Your task to perform on an android device: Open the map Image 0: 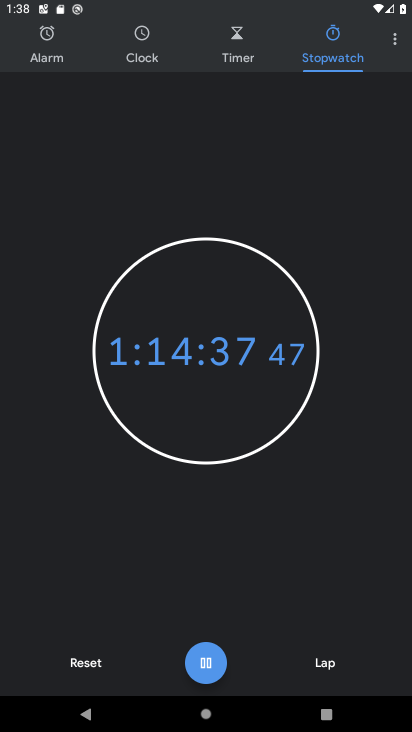
Step 0: press home button
Your task to perform on an android device: Open the map Image 1: 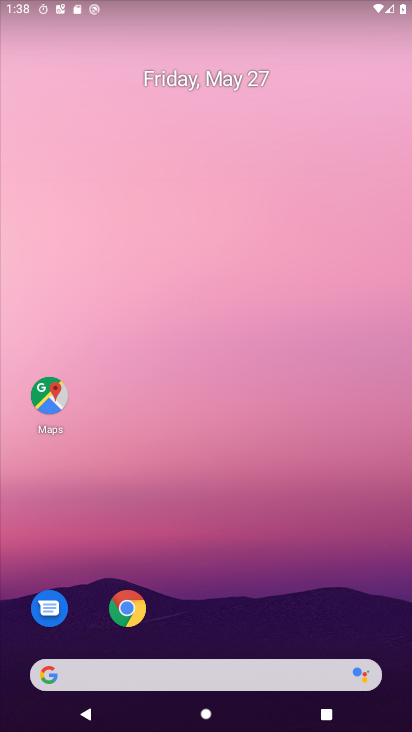
Step 1: click (50, 397)
Your task to perform on an android device: Open the map Image 2: 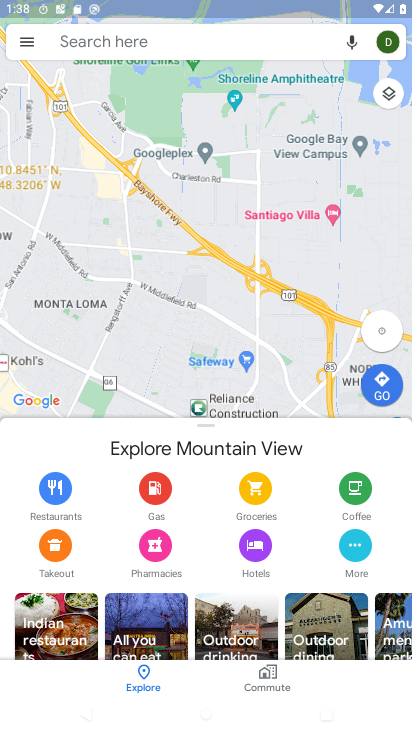
Step 2: task complete